Your task to perform on an android device: What's on my calendar today? Image 0: 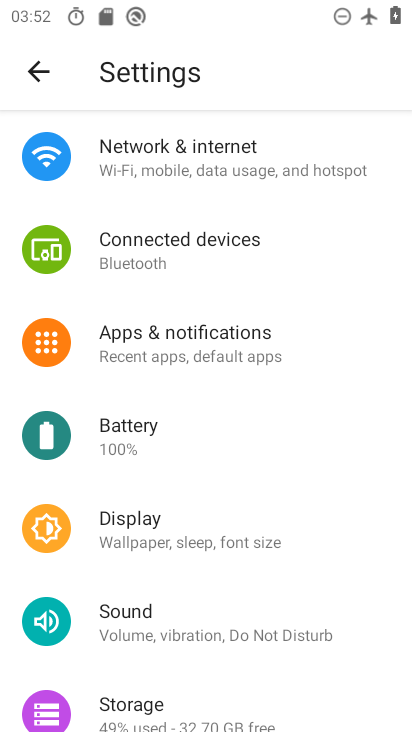
Step 0: press home button
Your task to perform on an android device: What's on my calendar today? Image 1: 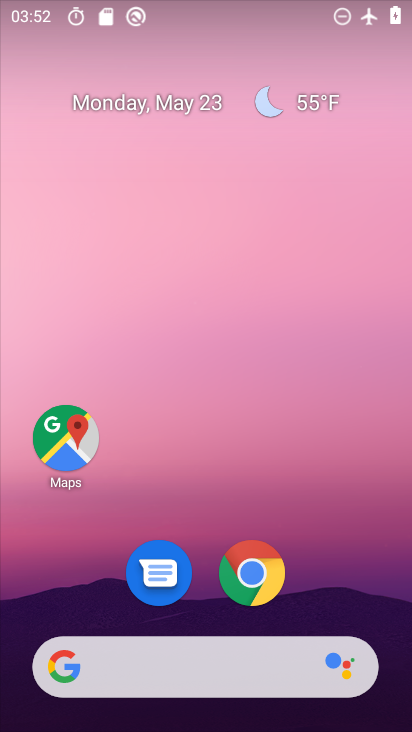
Step 1: click (153, 104)
Your task to perform on an android device: What's on my calendar today? Image 2: 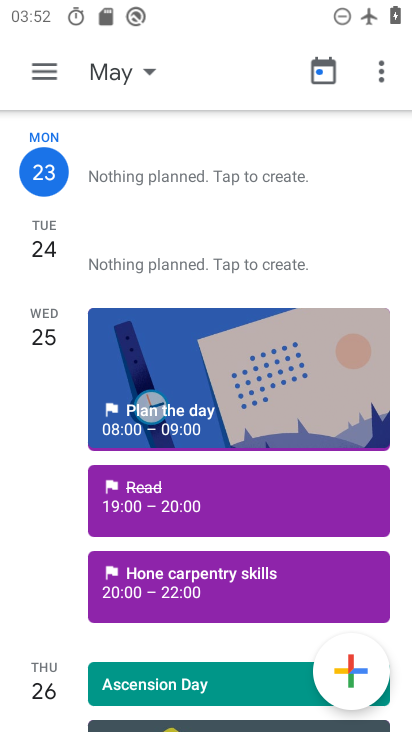
Step 2: task complete